Your task to perform on an android device: toggle improve location accuracy Image 0: 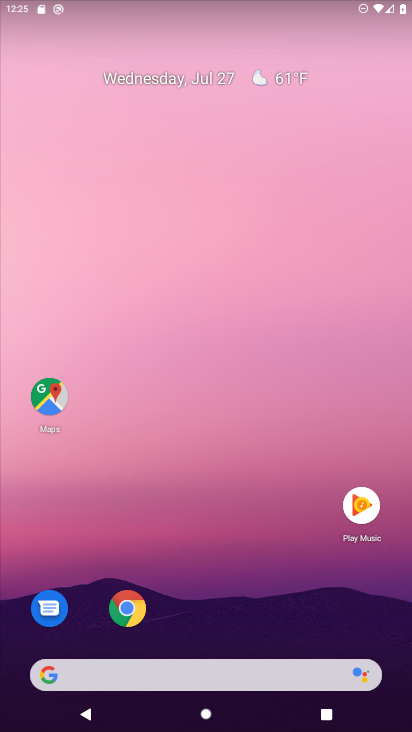
Step 0: drag from (318, 612) to (346, 192)
Your task to perform on an android device: toggle improve location accuracy Image 1: 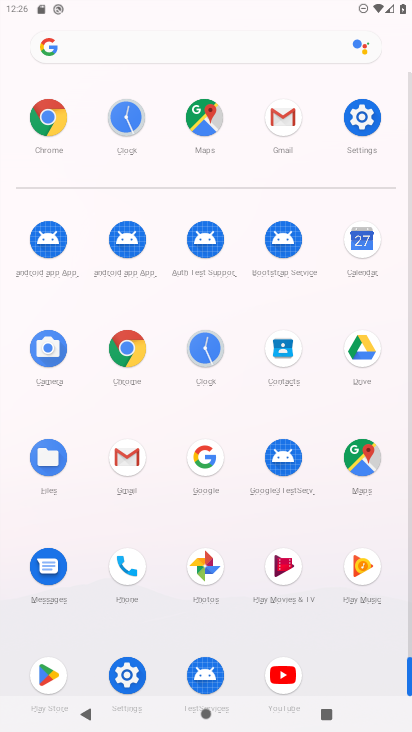
Step 1: click (362, 127)
Your task to perform on an android device: toggle improve location accuracy Image 2: 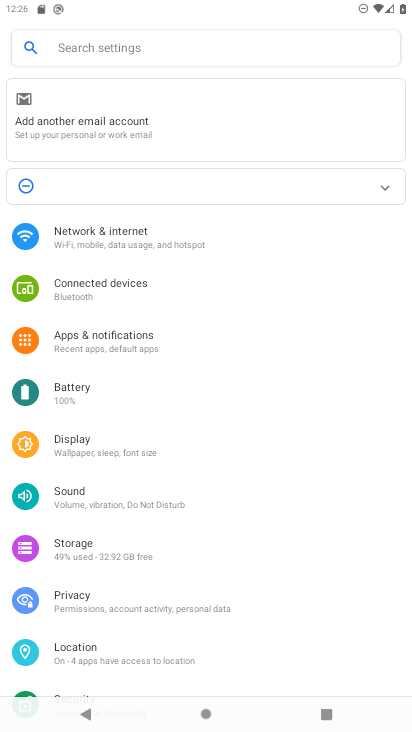
Step 2: drag from (334, 396) to (338, 360)
Your task to perform on an android device: toggle improve location accuracy Image 3: 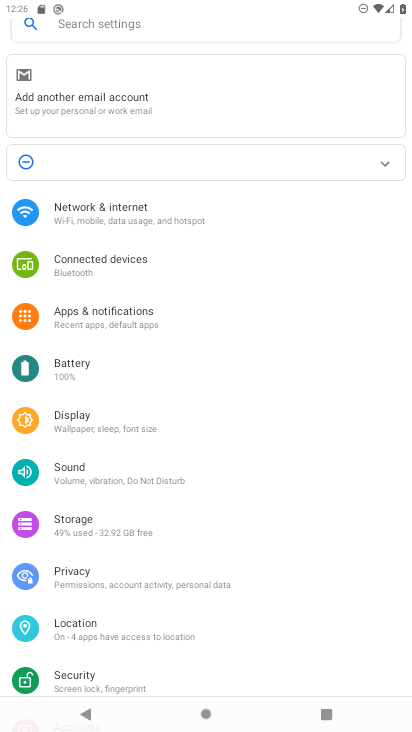
Step 3: drag from (337, 486) to (340, 449)
Your task to perform on an android device: toggle improve location accuracy Image 4: 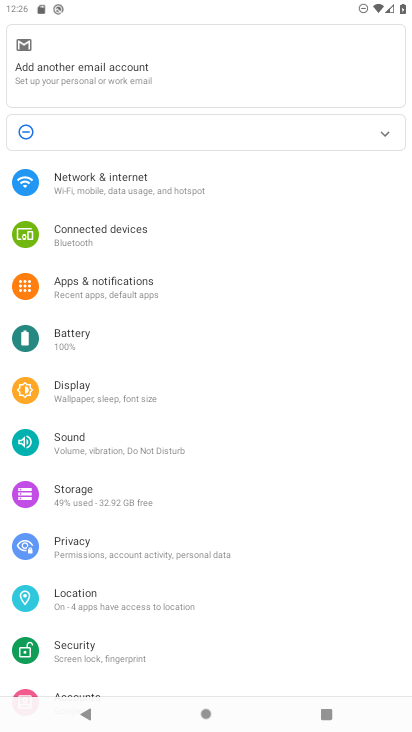
Step 4: drag from (336, 506) to (338, 458)
Your task to perform on an android device: toggle improve location accuracy Image 5: 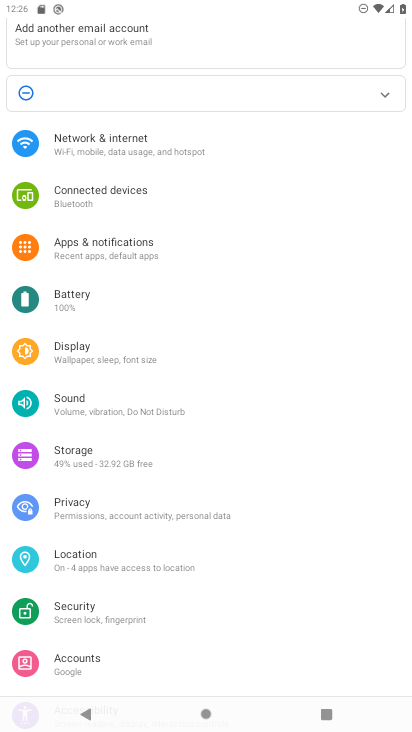
Step 5: drag from (328, 555) to (329, 495)
Your task to perform on an android device: toggle improve location accuracy Image 6: 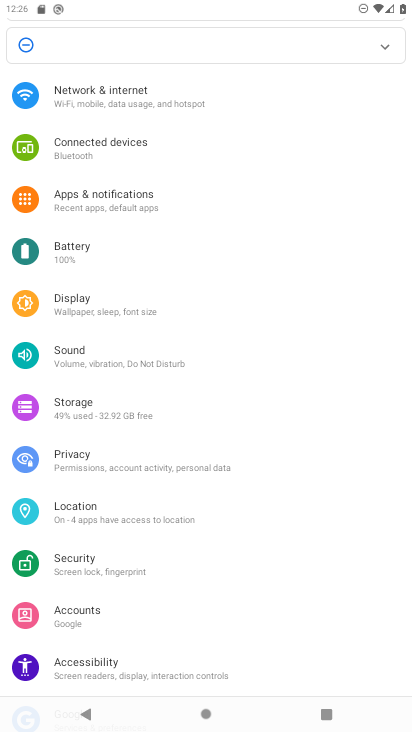
Step 6: drag from (320, 547) to (321, 498)
Your task to perform on an android device: toggle improve location accuracy Image 7: 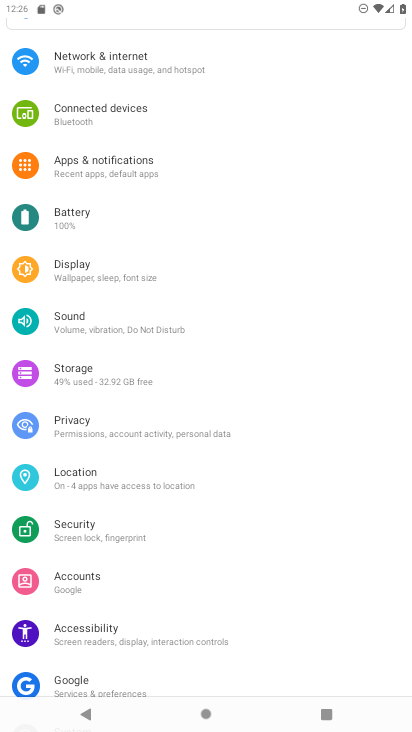
Step 7: drag from (313, 566) to (316, 520)
Your task to perform on an android device: toggle improve location accuracy Image 8: 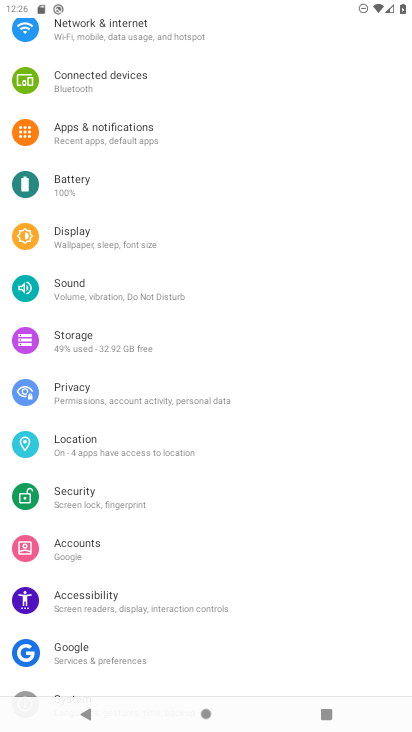
Step 8: click (312, 555)
Your task to perform on an android device: toggle improve location accuracy Image 9: 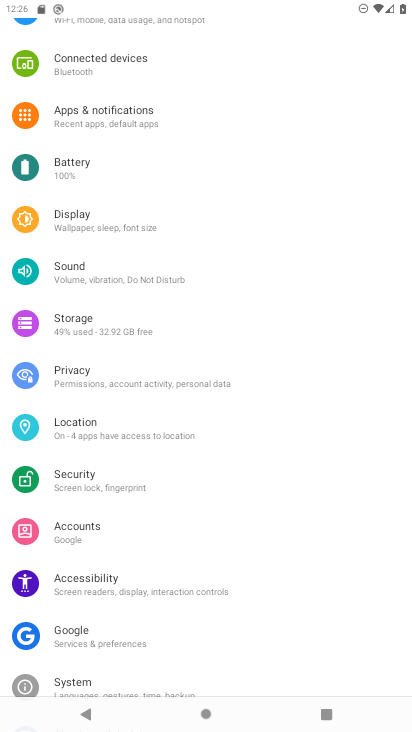
Step 9: drag from (306, 571) to (311, 536)
Your task to perform on an android device: toggle improve location accuracy Image 10: 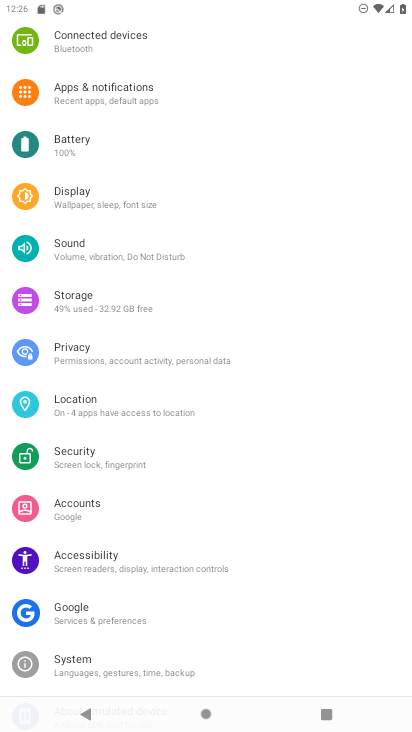
Step 10: drag from (302, 558) to (303, 506)
Your task to perform on an android device: toggle improve location accuracy Image 11: 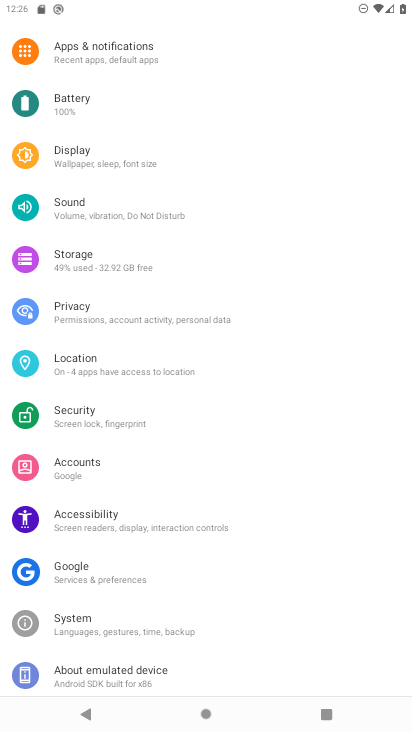
Step 11: drag from (304, 503) to (300, 445)
Your task to perform on an android device: toggle improve location accuracy Image 12: 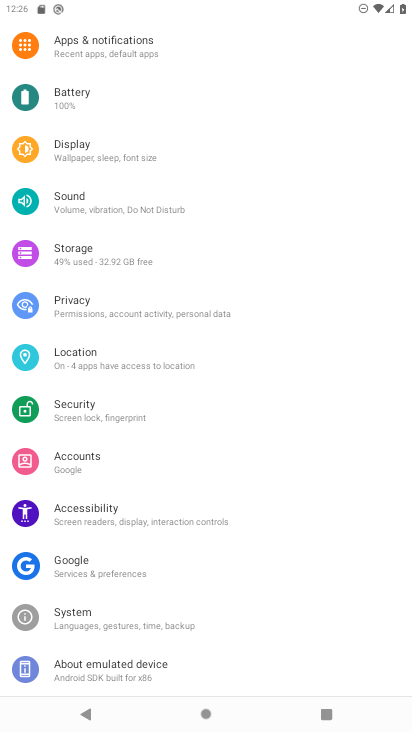
Step 12: drag from (298, 414) to (298, 448)
Your task to perform on an android device: toggle improve location accuracy Image 13: 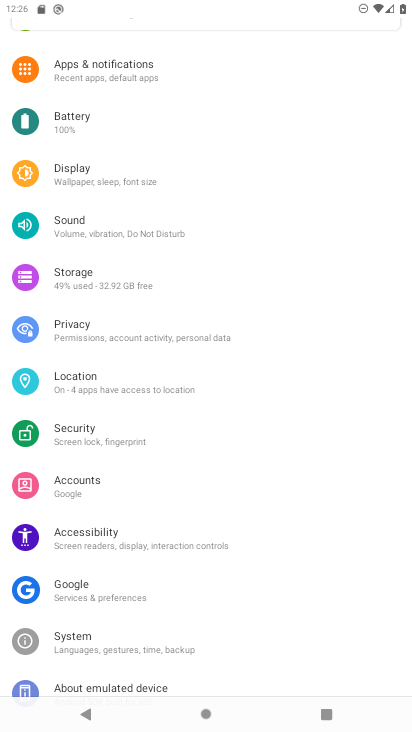
Step 13: drag from (287, 396) to (286, 442)
Your task to perform on an android device: toggle improve location accuracy Image 14: 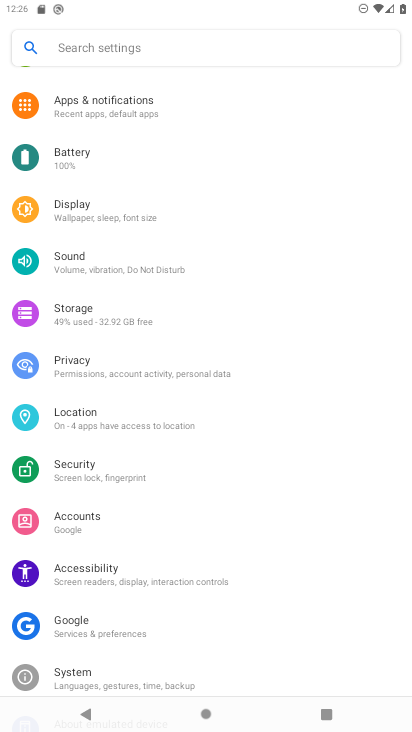
Step 14: drag from (288, 390) to (287, 485)
Your task to perform on an android device: toggle improve location accuracy Image 15: 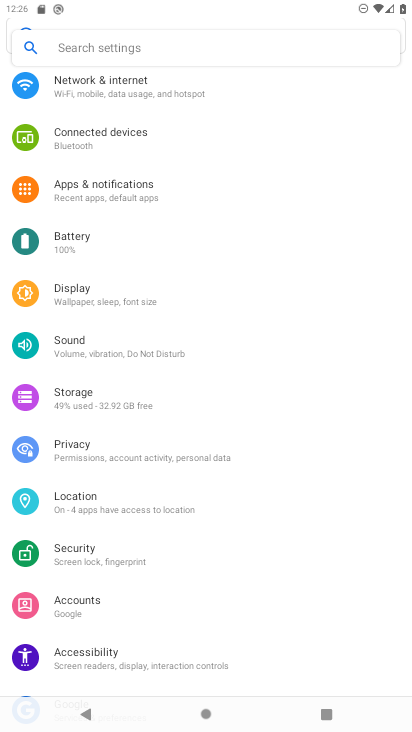
Step 15: click (270, 501)
Your task to perform on an android device: toggle improve location accuracy Image 16: 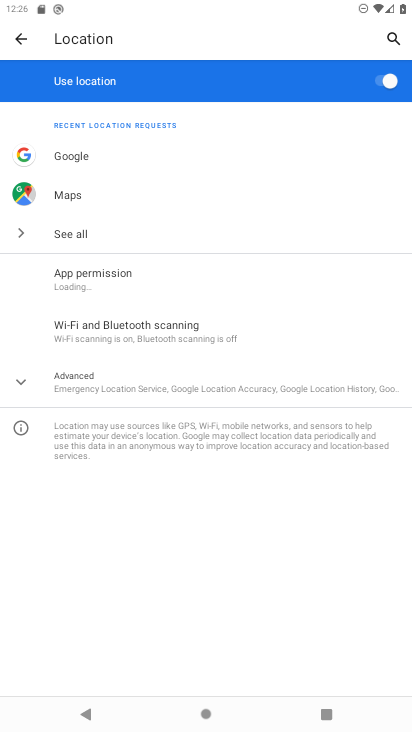
Step 16: click (260, 393)
Your task to perform on an android device: toggle improve location accuracy Image 17: 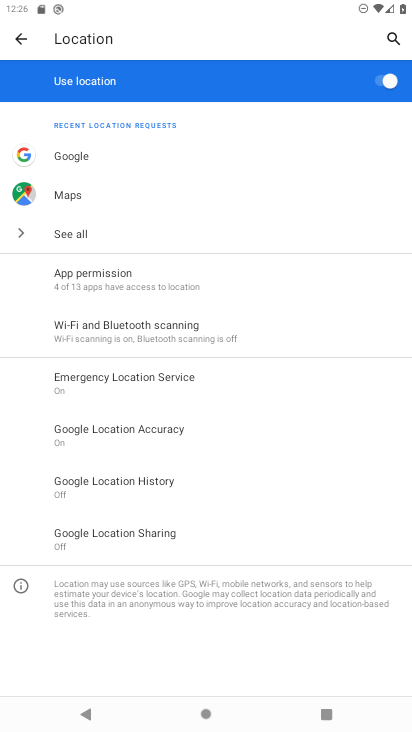
Step 17: click (178, 445)
Your task to perform on an android device: toggle improve location accuracy Image 18: 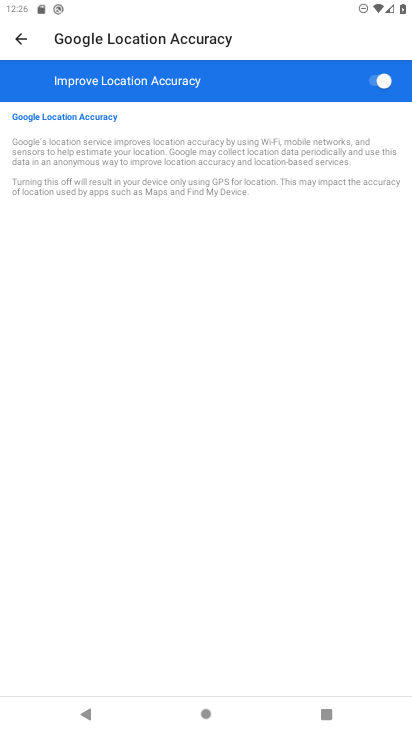
Step 18: click (375, 82)
Your task to perform on an android device: toggle improve location accuracy Image 19: 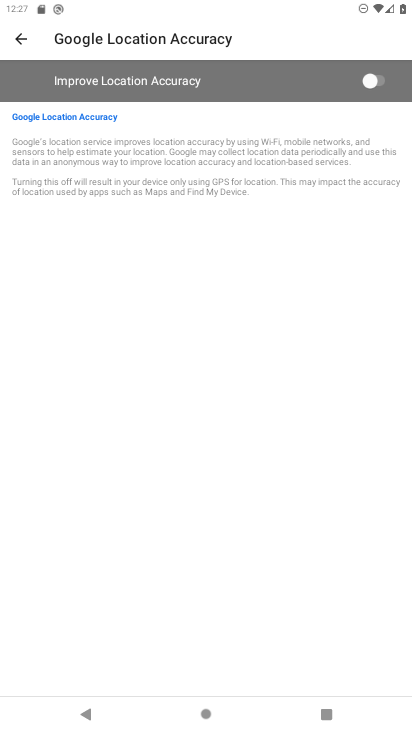
Step 19: task complete